Your task to perform on an android device: search for starred emails in the gmail app Image 0: 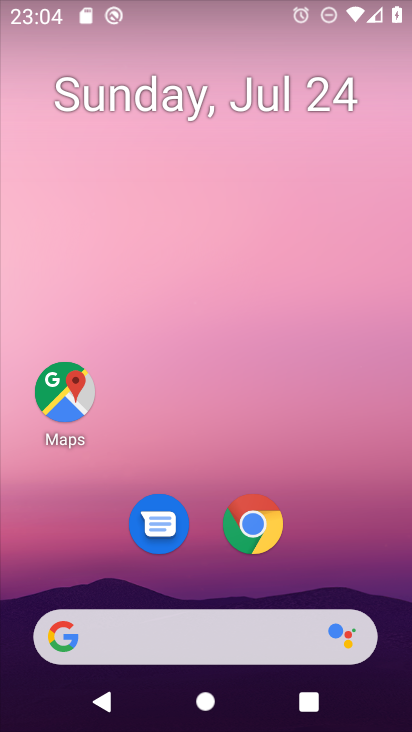
Step 0: drag from (256, 382) to (354, 83)
Your task to perform on an android device: search for starred emails in the gmail app Image 1: 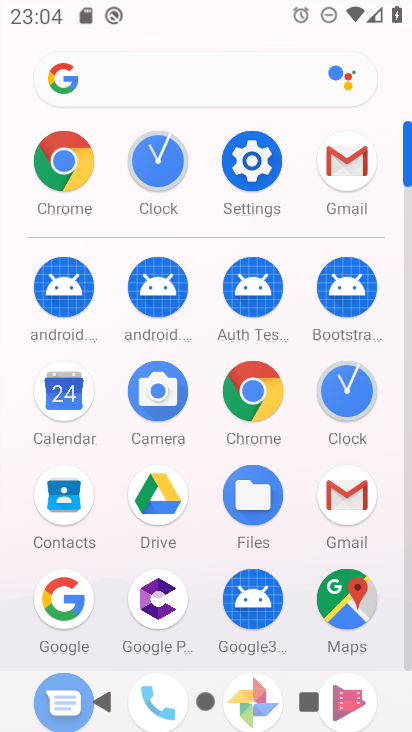
Step 1: click (351, 176)
Your task to perform on an android device: search for starred emails in the gmail app Image 2: 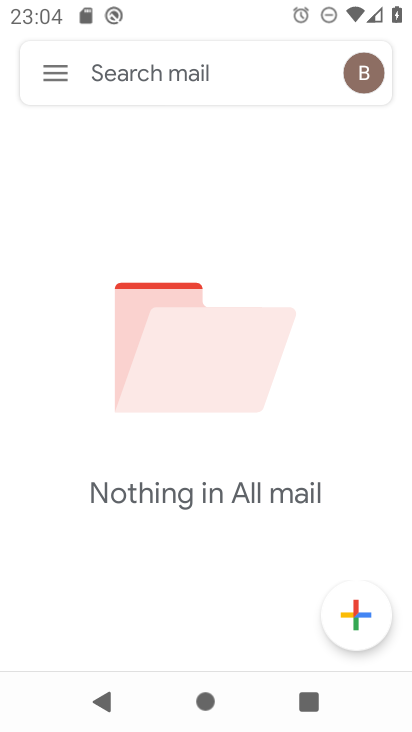
Step 2: click (64, 72)
Your task to perform on an android device: search for starred emails in the gmail app Image 3: 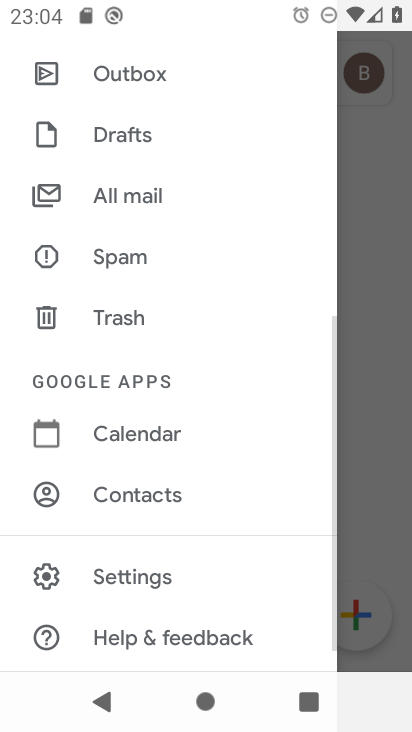
Step 3: drag from (227, 124) to (146, 543)
Your task to perform on an android device: search for starred emails in the gmail app Image 4: 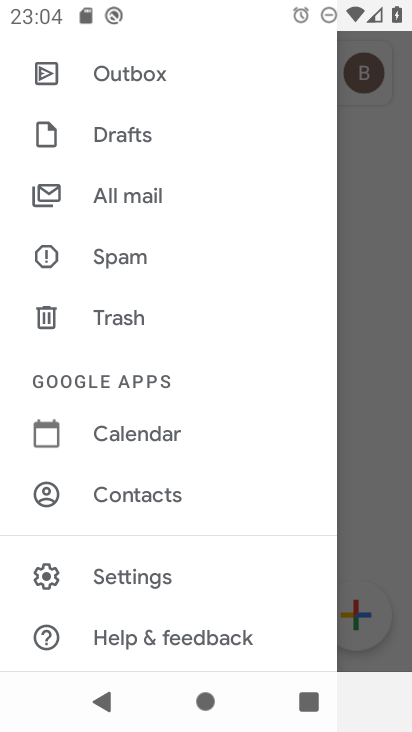
Step 4: drag from (147, 100) to (93, 622)
Your task to perform on an android device: search for starred emails in the gmail app Image 5: 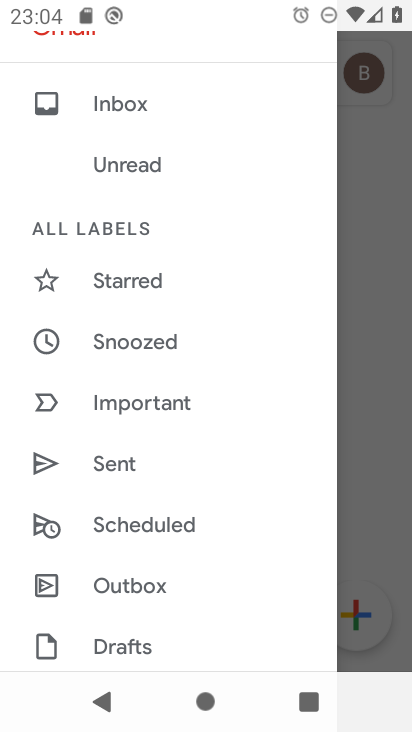
Step 5: click (143, 286)
Your task to perform on an android device: search for starred emails in the gmail app Image 6: 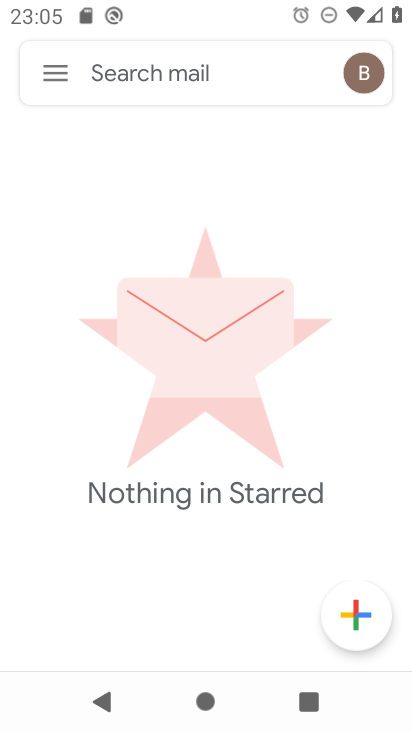
Step 6: task complete